Your task to perform on an android device: Show me recent news Image 0: 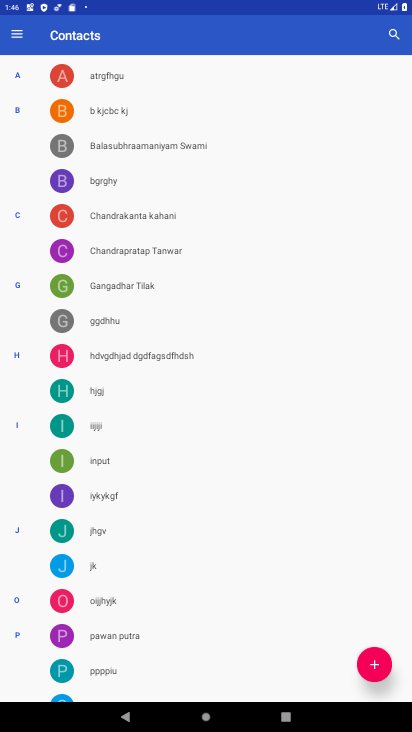
Step 0: press home button
Your task to perform on an android device: Show me recent news Image 1: 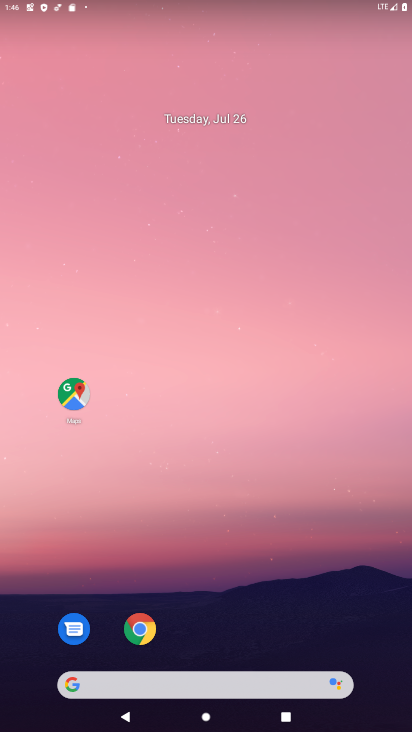
Step 1: drag from (395, 718) to (347, 148)
Your task to perform on an android device: Show me recent news Image 2: 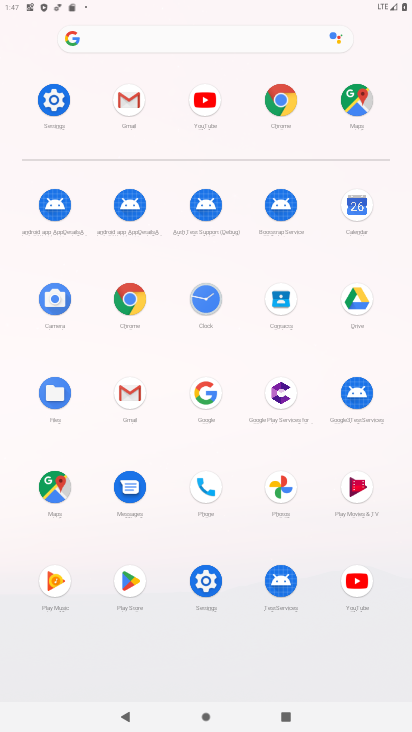
Step 2: click (204, 404)
Your task to perform on an android device: Show me recent news Image 3: 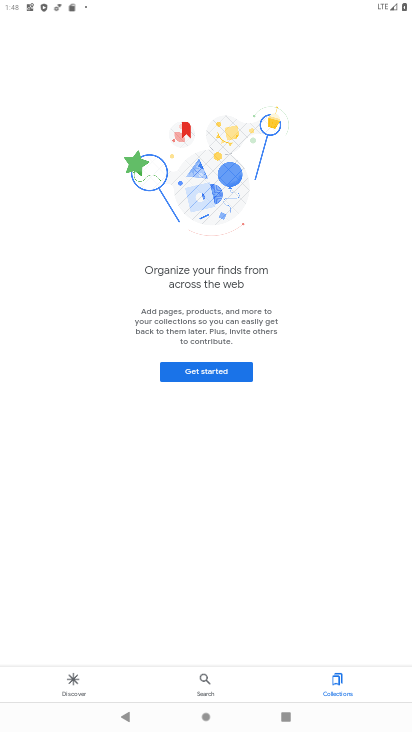
Step 3: task complete